Your task to perform on an android device: Go to sound settings Image 0: 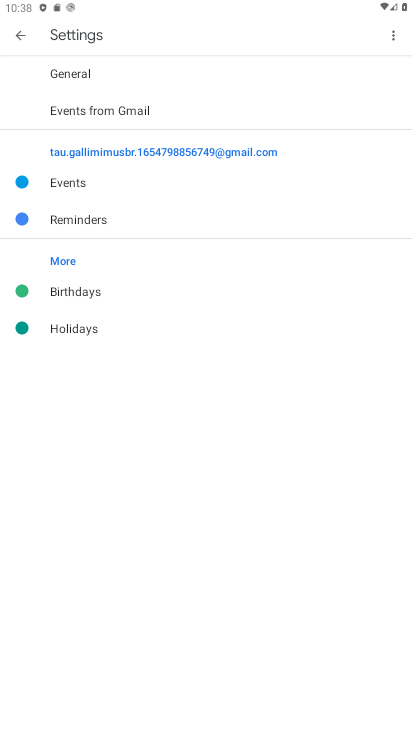
Step 0: press home button
Your task to perform on an android device: Go to sound settings Image 1: 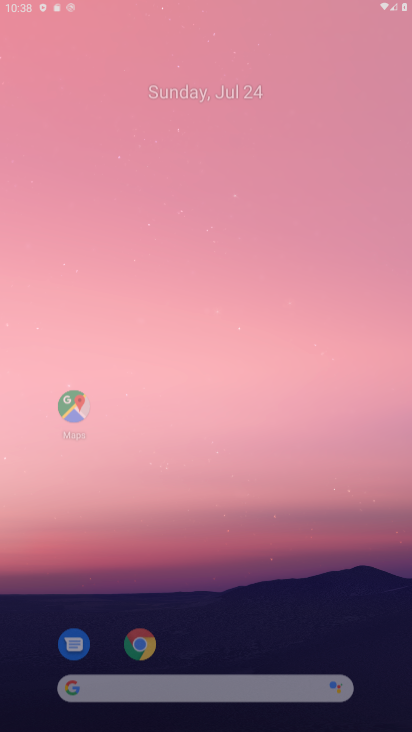
Step 1: drag from (295, 597) to (269, 142)
Your task to perform on an android device: Go to sound settings Image 2: 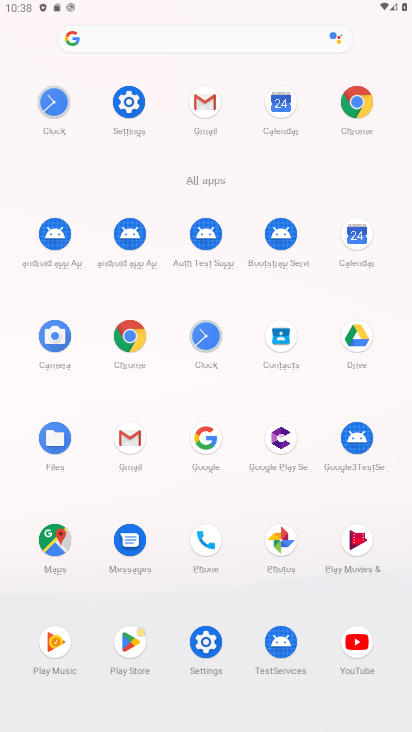
Step 2: click (126, 107)
Your task to perform on an android device: Go to sound settings Image 3: 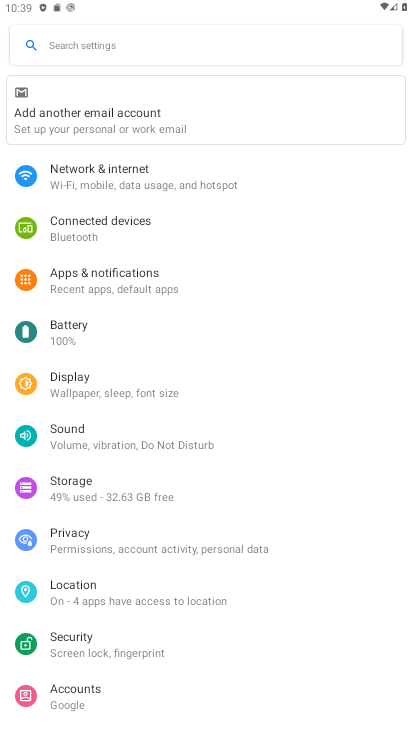
Step 3: click (127, 450)
Your task to perform on an android device: Go to sound settings Image 4: 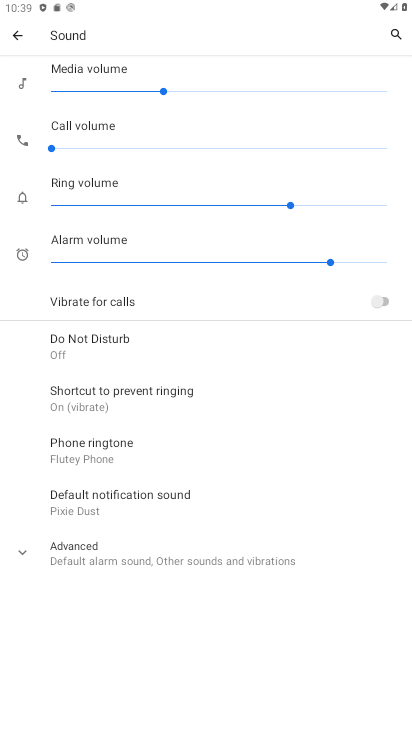
Step 4: task complete